Your task to perform on an android device: See recent photos Image 0: 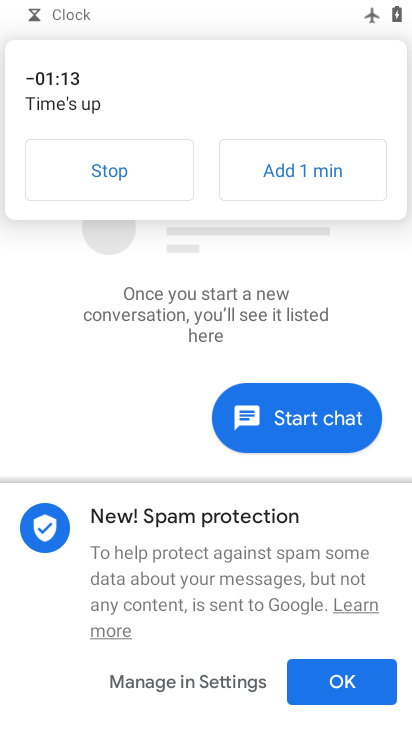
Step 0: press home button
Your task to perform on an android device: See recent photos Image 1: 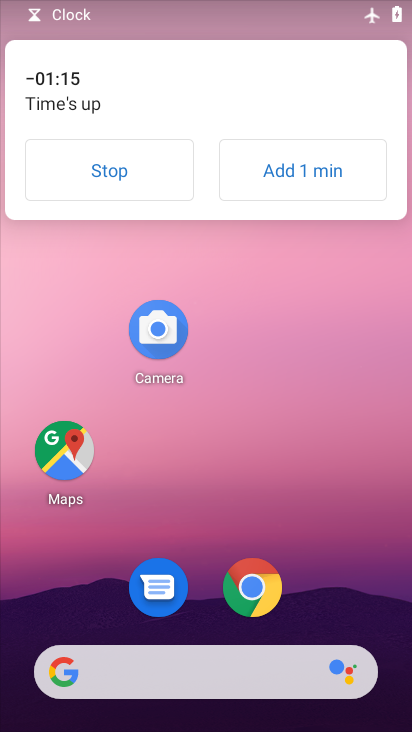
Step 1: drag from (197, 620) to (209, 270)
Your task to perform on an android device: See recent photos Image 2: 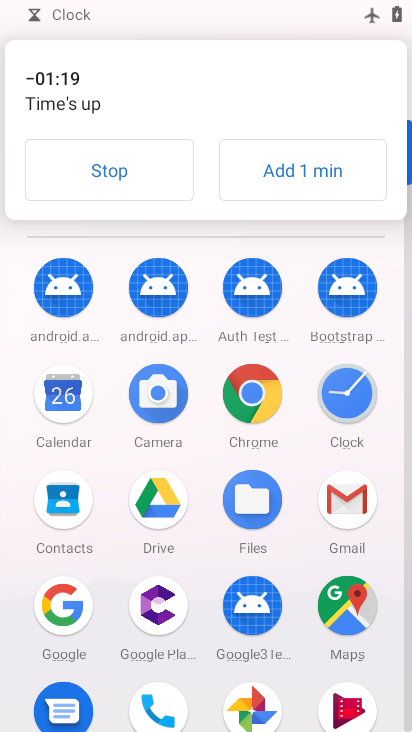
Step 2: click (247, 698)
Your task to perform on an android device: See recent photos Image 3: 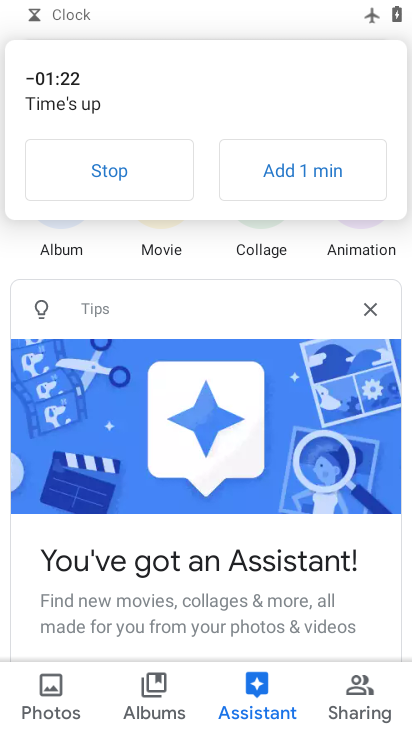
Step 3: click (120, 199)
Your task to perform on an android device: See recent photos Image 4: 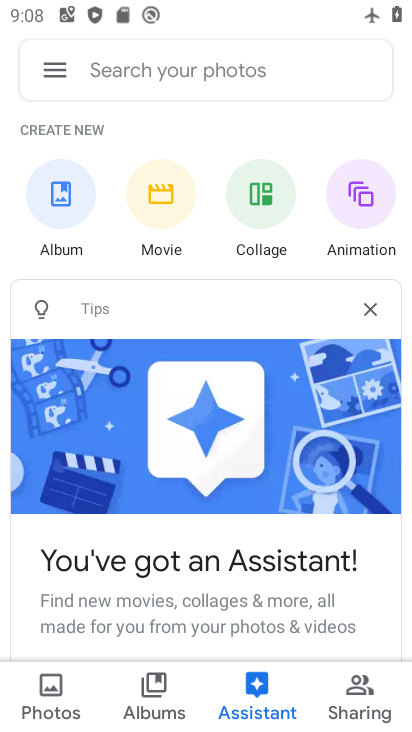
Step 4: click (64, 698)
Your task to perform on an android device: See recent photos Image 5: 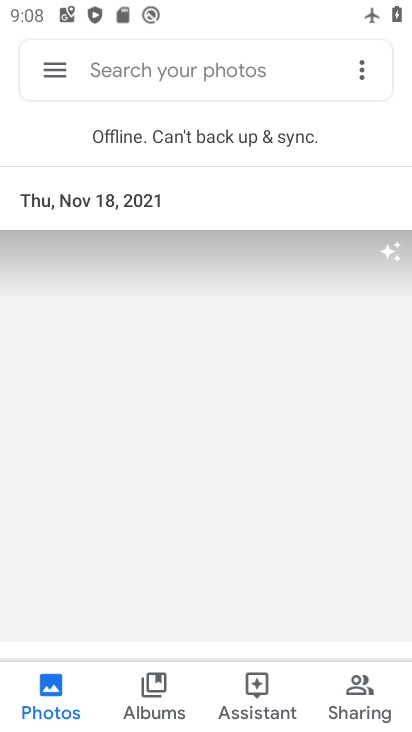
Step 5: task complete